Your task to perform on an android device: Go to Google maps Image 0: 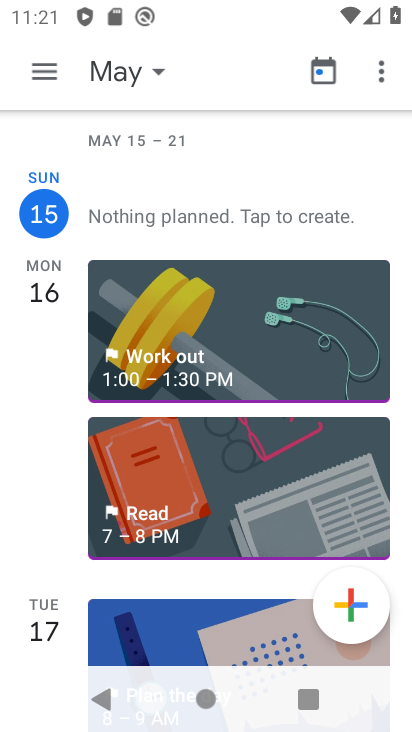
Step 0: press home button
Your task to perform on an android device: Go to Google maps Image 1: 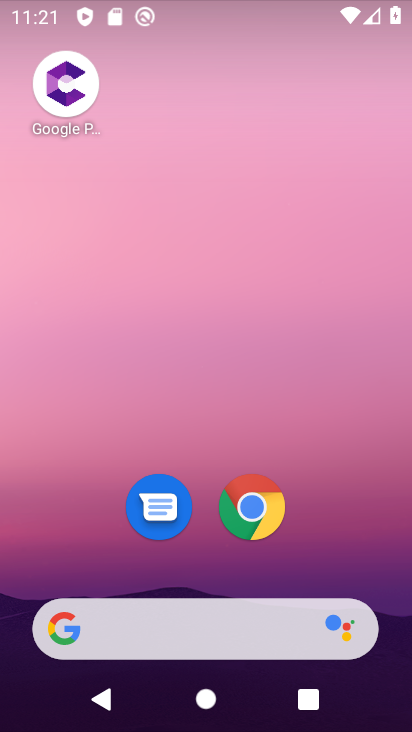
Step 1: click (71, 382)
Your task to perform on an android device: Go to Google maps Image 2: 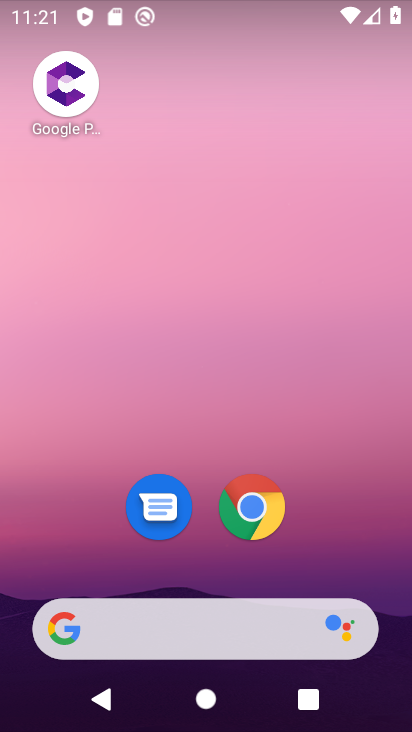
Step 2: drag from (62, 606) to (219, 60)
Your task to perform on an android device: Go to Google maps Image 3: 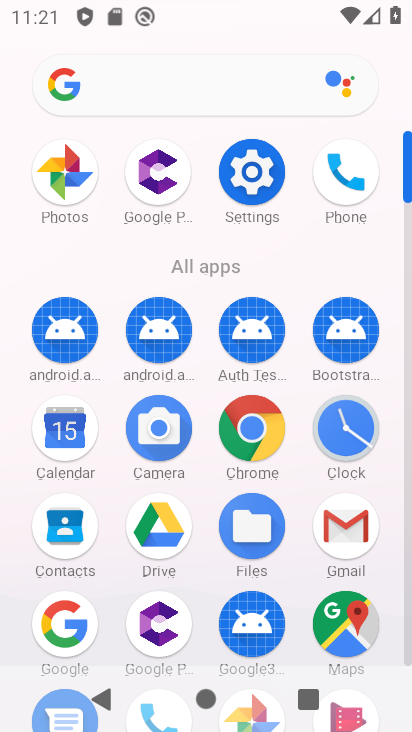
Step 3: click (372, 616)
Your task to perform on an android device: Go to Google maps Image 4: 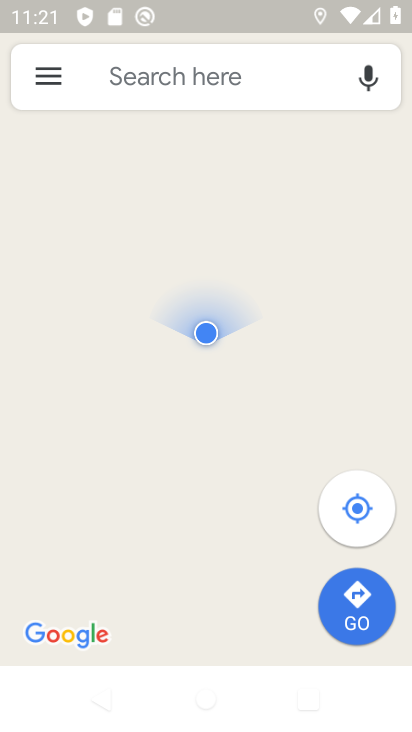
Step 4: task complete